Your task to perform on an android device: turn on improve location accuracy Image 0: 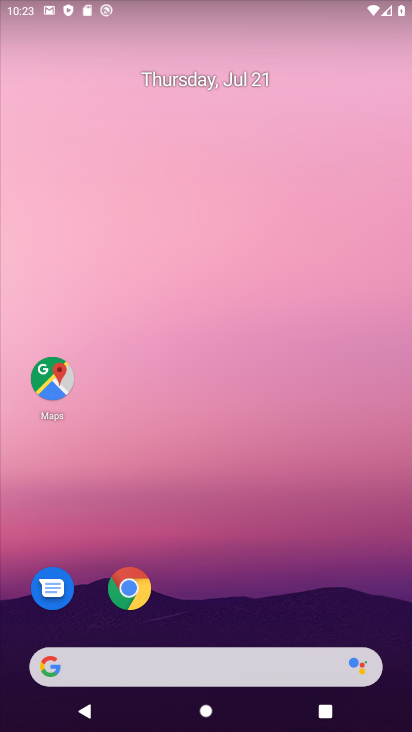
Step 0: drag from (189, 606) to (305, 174)
Your task to perform on an android device: turn on improve location accuracy Image 1: 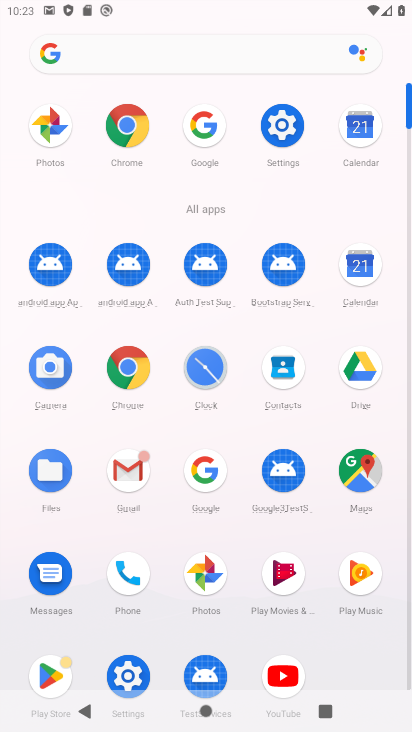
Step 1: click (117, 665)
Your task to perform on an android device: turn on improve location accuracy Image 2: 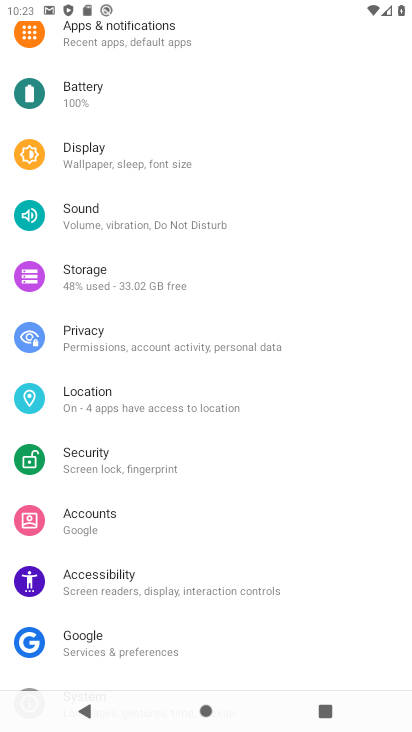
Step 2: click (125, 405)
Your task to perform on an android device: turn on improve location accuracy Image 3: 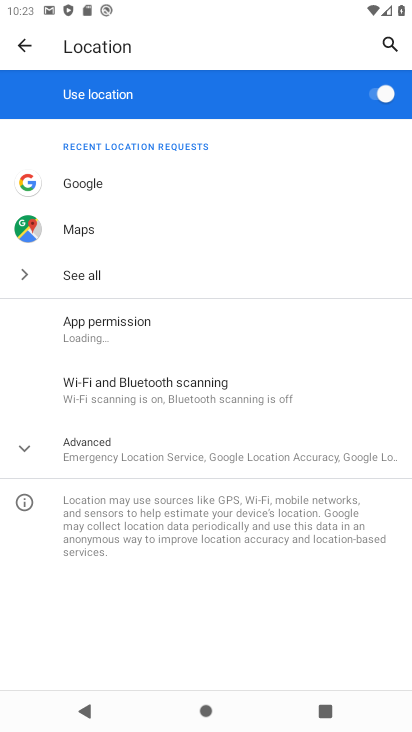
Step 3: drag from (207, 534) to (287, 146)
Your task to perform on an android device: turn on improve location accuracy Image 4: 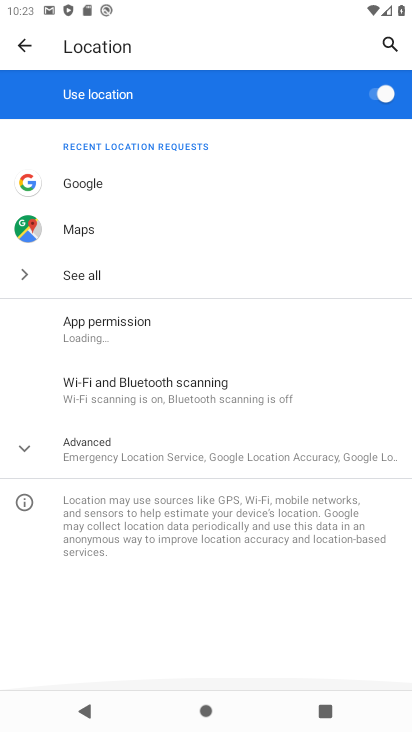
Step 4: click (116, 446)
Your task to perform on an android device: turn on improve location accuracy Image 5: 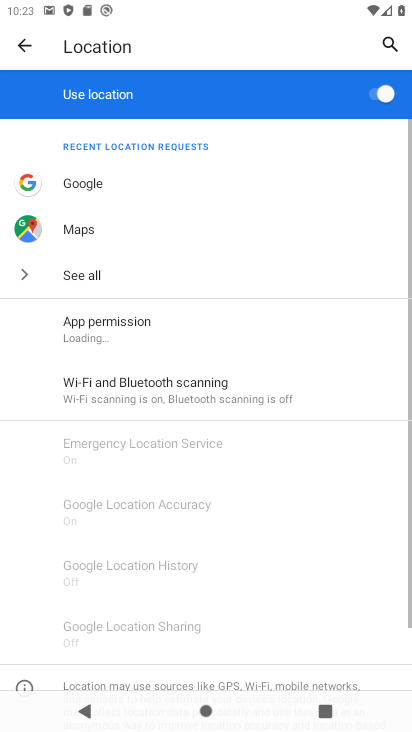
Step 5: drag from (117, 446) to (301, 44)
Your task to perform on an android device: turn on improve location accuracy Image 6: 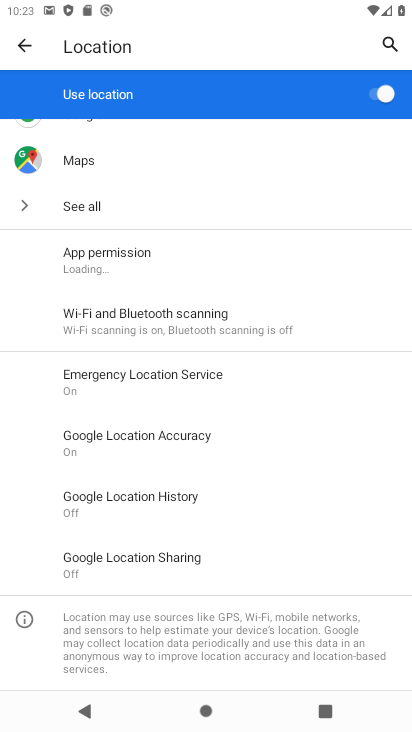
Step 6: click (177, 429)
Your task to perform on an android device: turn on improve location accuracy Image 7: 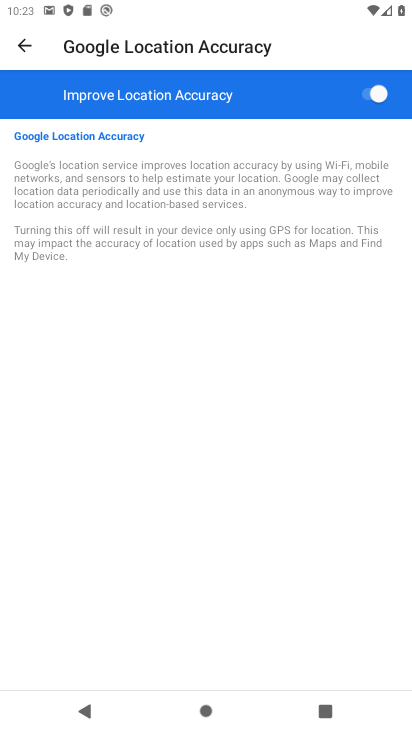
Step 7: task complete